Your task to perform on an android device: check out phone information Image 0: 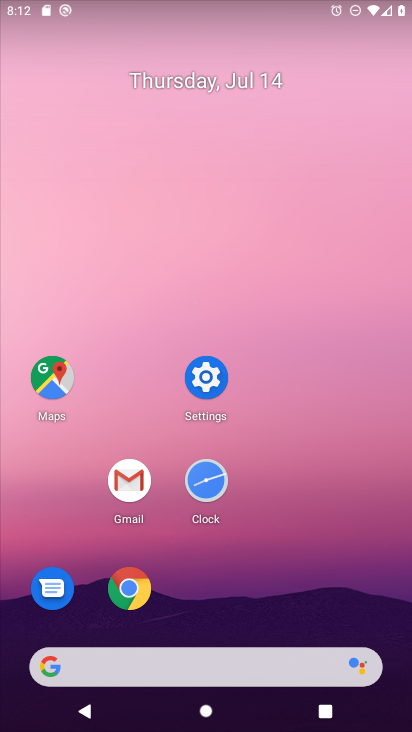
Step 0: click (206, 368)
Your task to perform on an android device: check out phone information Image 1: 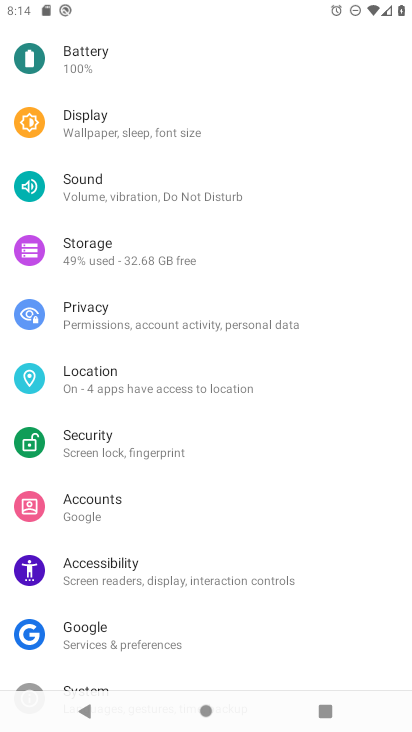
Step 1: drag from (237, 641) to (214, 170)
Your task to perform on an android device: check out phone information Image 2: 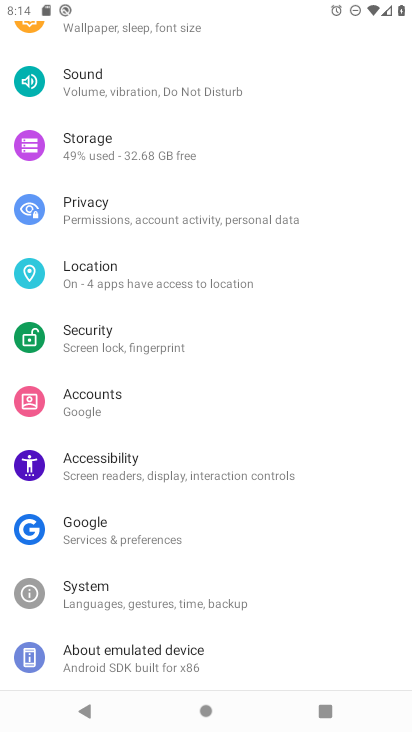
Step 2: click (94, 651)
Your task to perform on an android device: check out phone information Image 3: 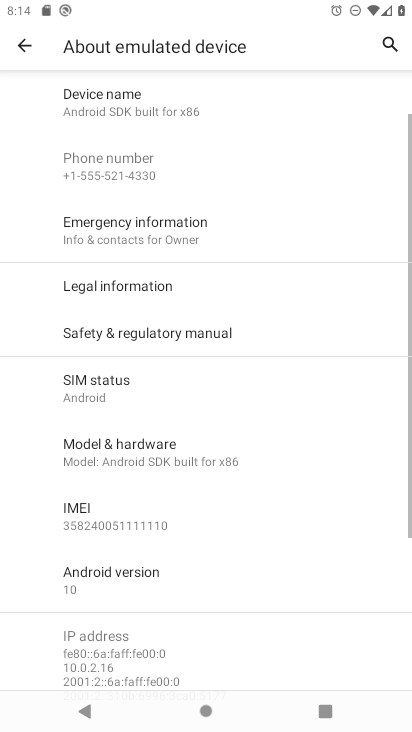
Step 3: task complete